Your task to perform on an android device: Find coffee shops on Maps Image 0: 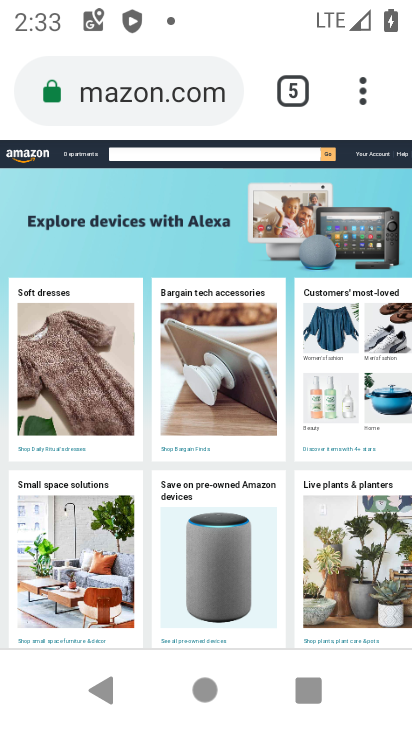
Step 0: press home button
Your task to perform on an android device: Find coffee shops on Maps Image 1: 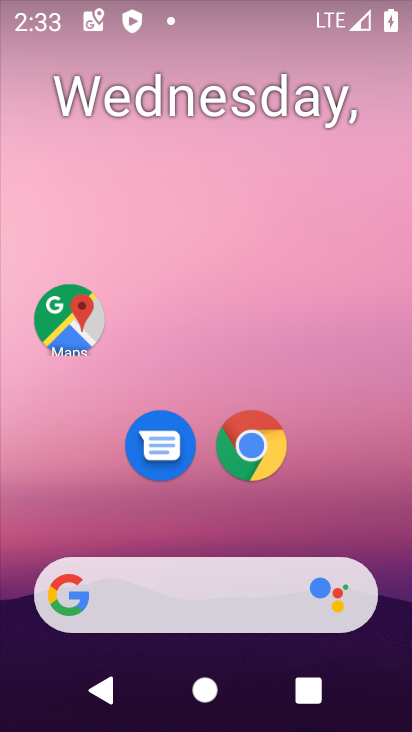
Step 1: click (85, 332)
Your task to perform on an android device: Find coffee shops on Maps Image 2: 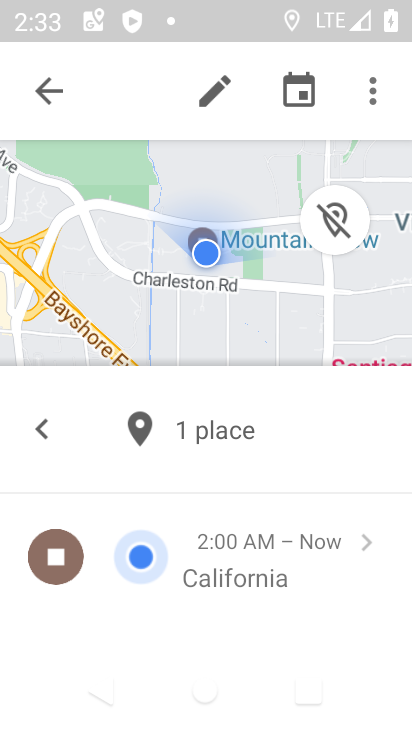
Step 2: click (52, 96)
Your task to perform on an android device: Find coffee shops on Maps Image 3: 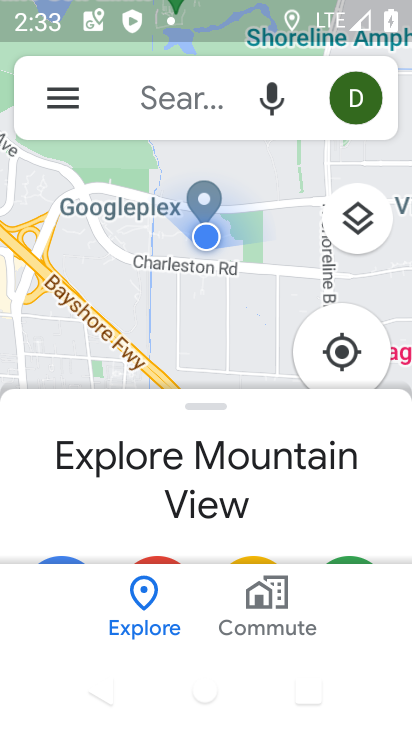
Step 3: click (145, 111)
Your task to perform on an android device: Find coffee shops on Maps Image 4: 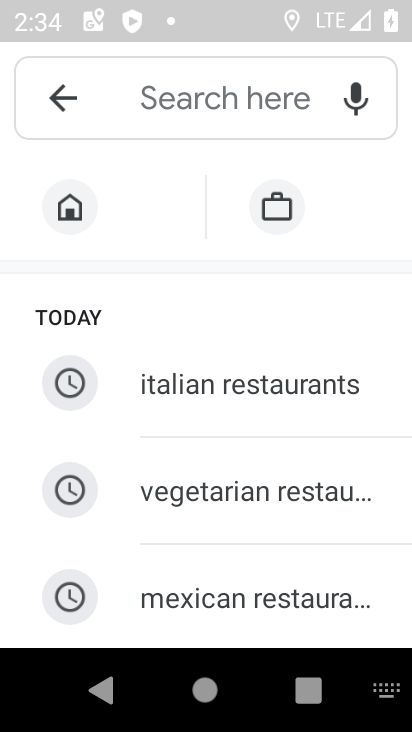
Step 4: type "coffee shops"
Your task to perform on an android device: Find coffee shops on Maps Image 5: 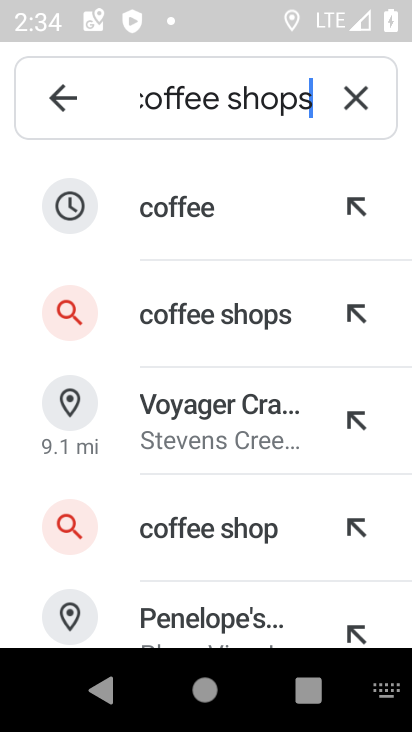
Step 5: click (197, 311)
Your task to perform on an android device: Find coffee shops on Maps Image 6: 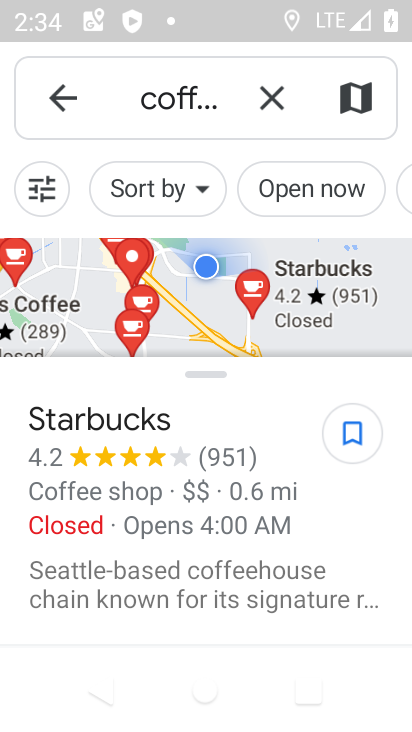
Step 6: task complete